Your task to perform on an android device: toggle data saver in the chrome app Image 0: 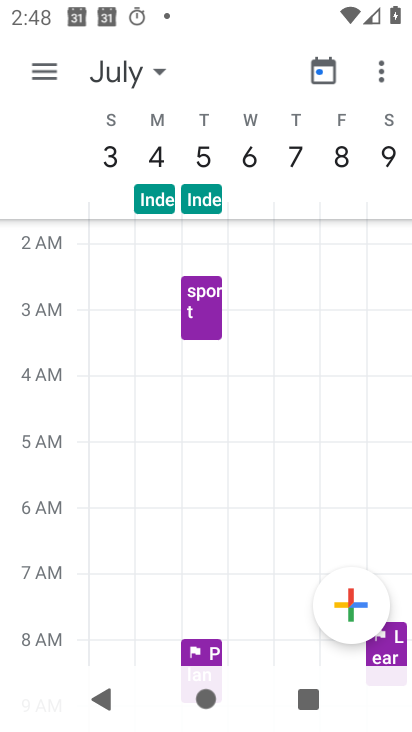
Step 0: press home button
Your task to perform on an android device: toggle data saver in the chrome app Image 1: 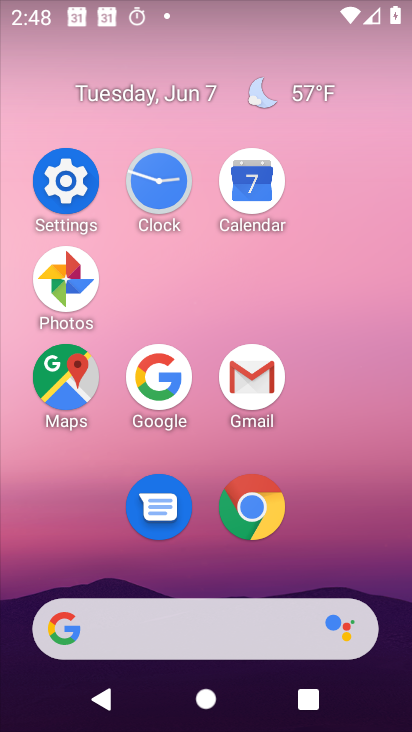
Step 1: click (251, 493)
Your task to perform on an android device: toggle data saver in the chrome app Image 2: 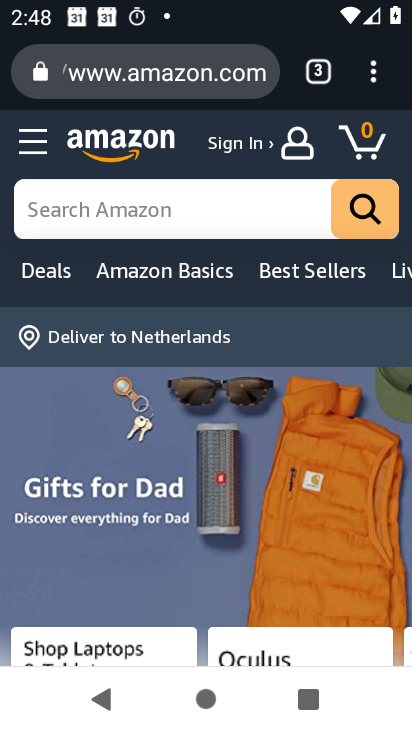
Step 2: click (377, 69)
Your task to perform on an android device: toggle data saver in the chrome app Image 3: 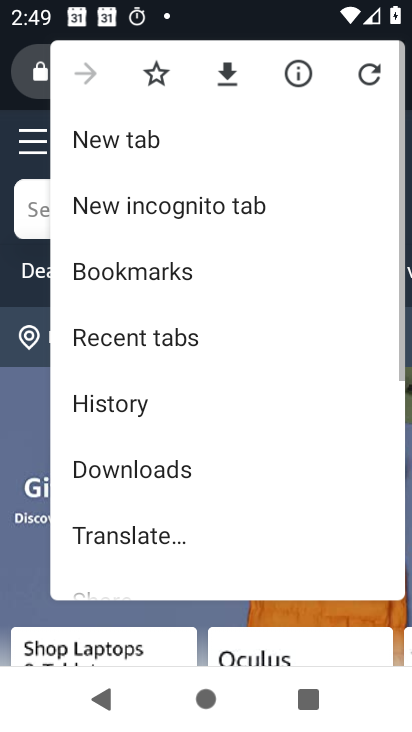
Step 3: drag from (184, 486) to (240, 147)
Your task to perform on an android device: toggle data saver in the chrome app Image 4: 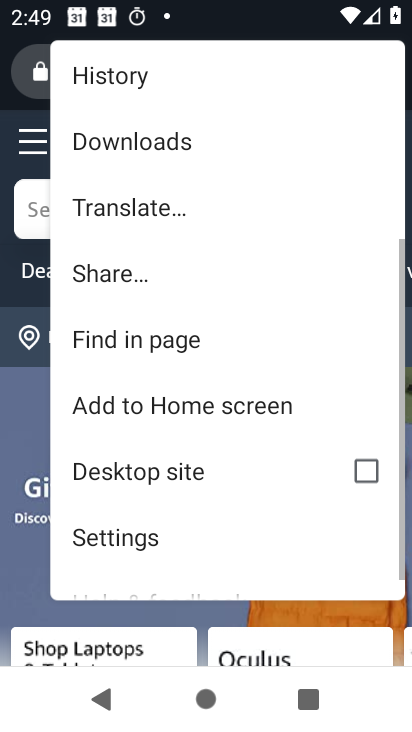
Step 4: click (124, 560)
Your task to perform on an android device: toggle data saver in the chrome app Image 5: 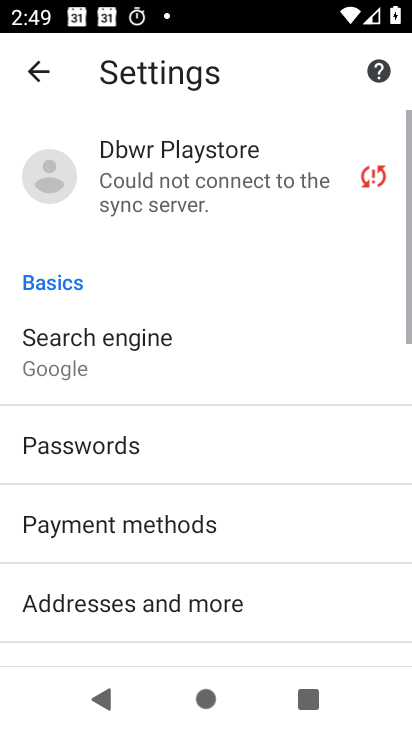
Step 5: drag from (149, 520) to (218, 182)
Your task to perform on an android device: toggle data saver in the chrome app Image 6: 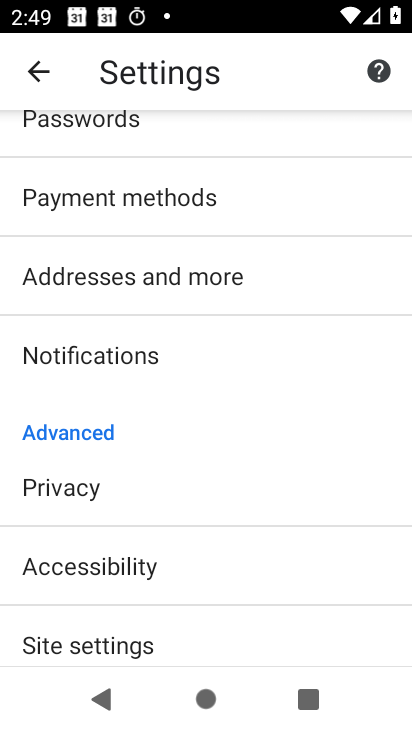
Step 6: drag from (142, 566) to (204, 227)
Your task to perform on an android device: toggle data saver in the chrome app Image 7: 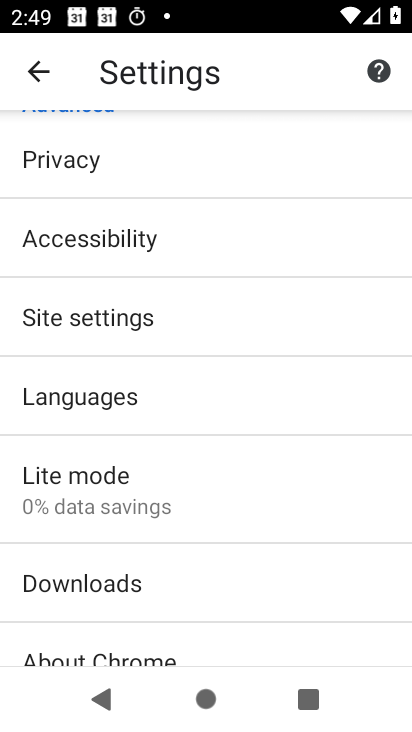
Step 7: click (242, 462)
Your task to perform on an android device: toggle data saver in the chrome app Image 8: 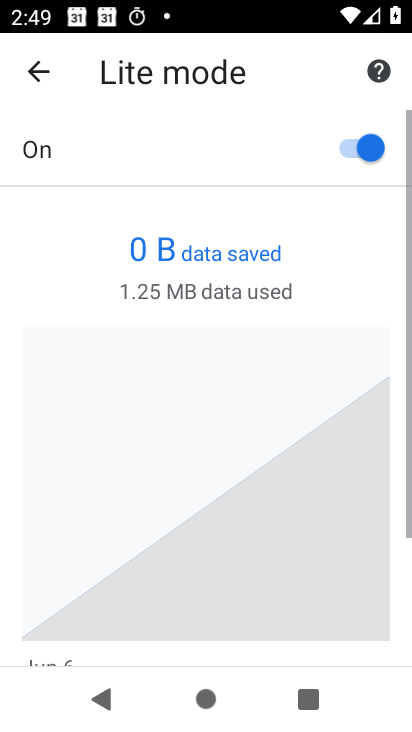
Step 8: click (371, 148)
Your task to perform on an android device: toggle data saver in the chrome app Image 9: 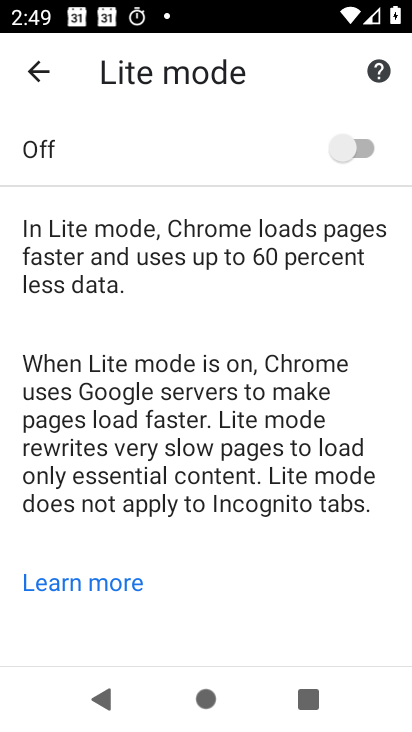
Step 9: task complete